Your task to perform on an android device: snooze an email in the gmail app Image 0: 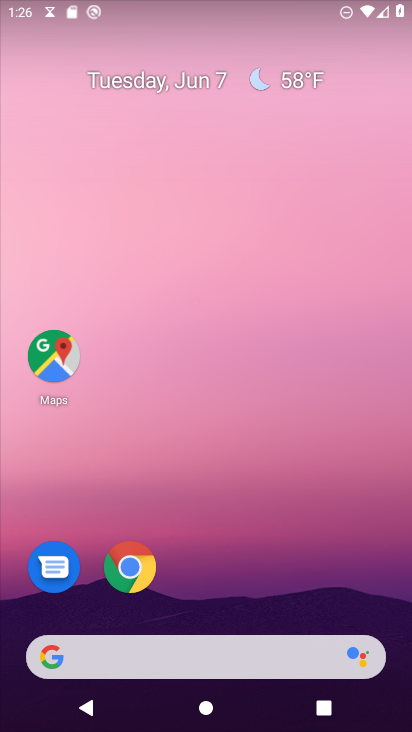
Step 0: drag from (411, 680) to (355, 173)
Your task to perform on an android device: snooze an email in the gmail app Image 1: 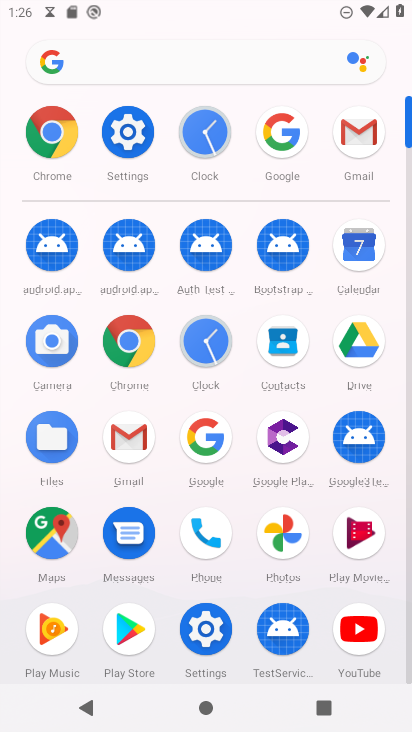
Step 1: click (126, 420)
Your task to perform on an android device: snooze an email in the gmail app Image 2: 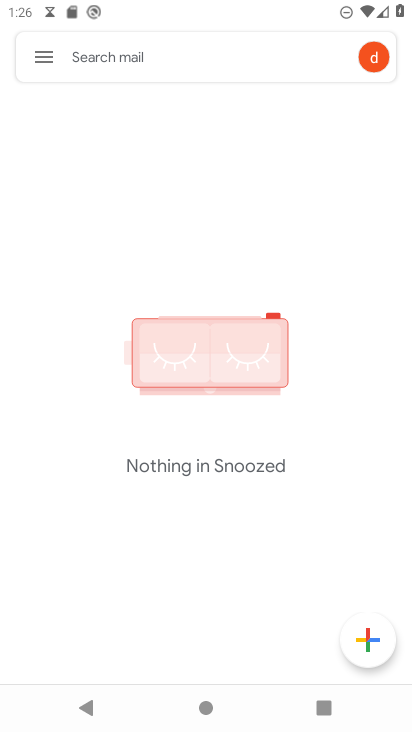
Step 2: click (43, 50)
Your task to perform on an android device: snooze an email in the gmail app Image 3: 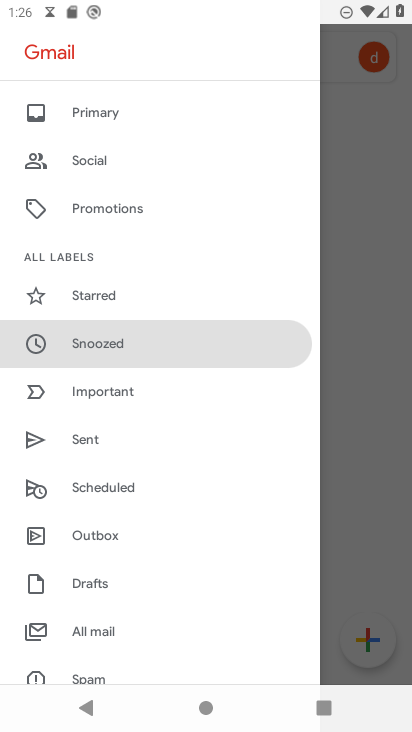
Step 3: click (91, 103)
Your task to perform on an android device: snooze an email in the gmail app Image 4: 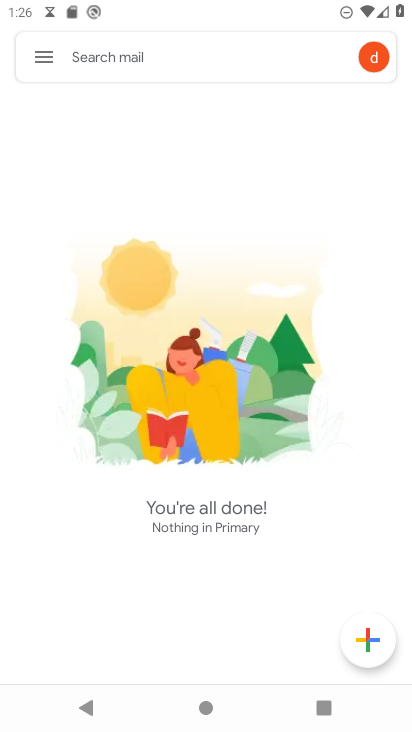
Step 4: task complete